Your task to perform on an android device: check data usage Image 0: 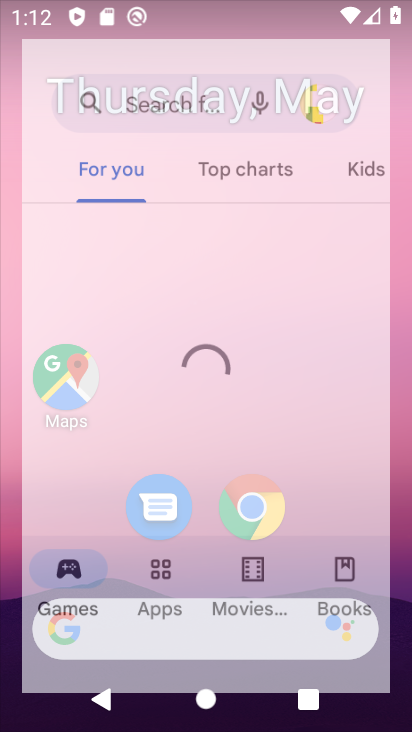
Step 0: drag from (326, 543) to (321, 165)
Your task to perform on an android device: check data usage Image 1: 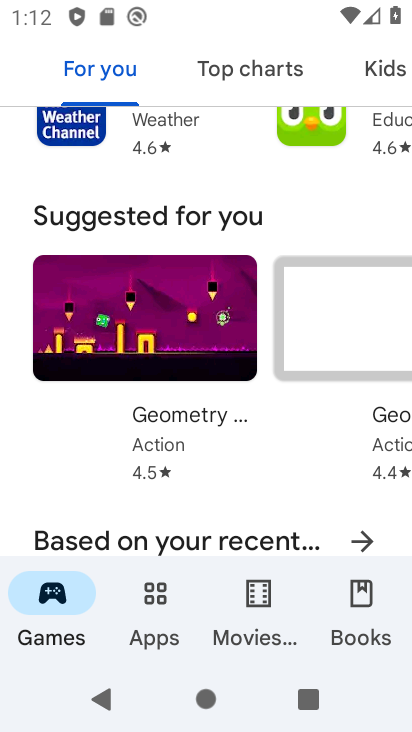
Step 1: press home button
Your task to perform on an android device: check data usage Image 2: 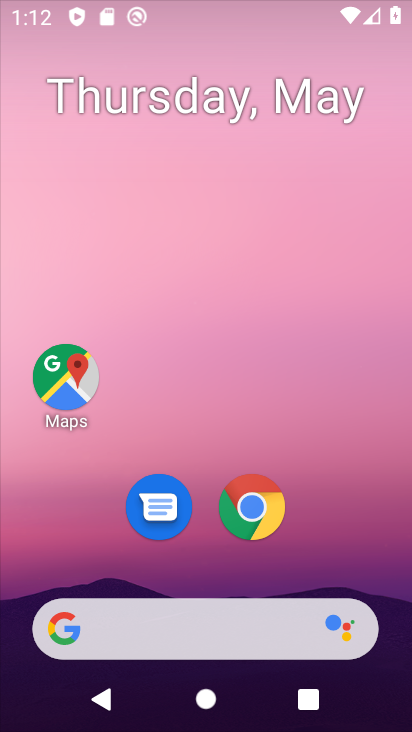
Step 2: drag from (252, 549) to (261, 222)
Your task to perform on an android device: check data usage Image 3: 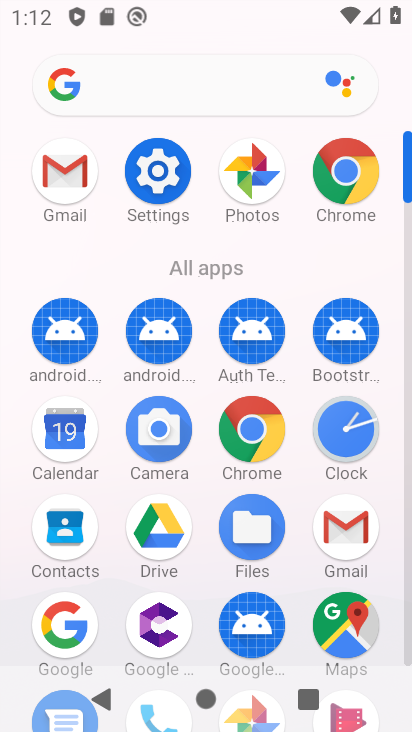
Step 3: click (143, 168)
Your task to perform on an android device: check data usage Image 4: 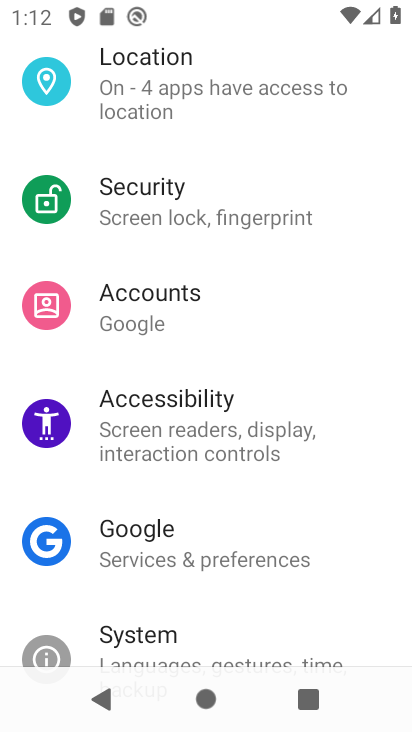
Step 4: drag from (223, 142) to (209, 580)
Your task to perform on an android device: check data usage Image 5: 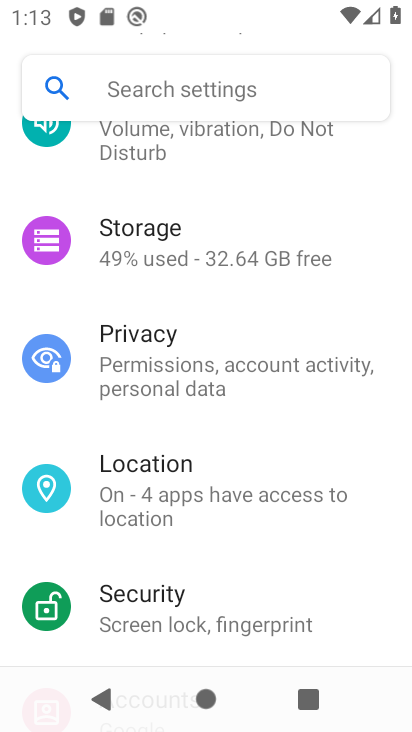
Step 5: drag from (236, 181) to (225, 576)
Your task to perform on an android device: check data usage Image 6: 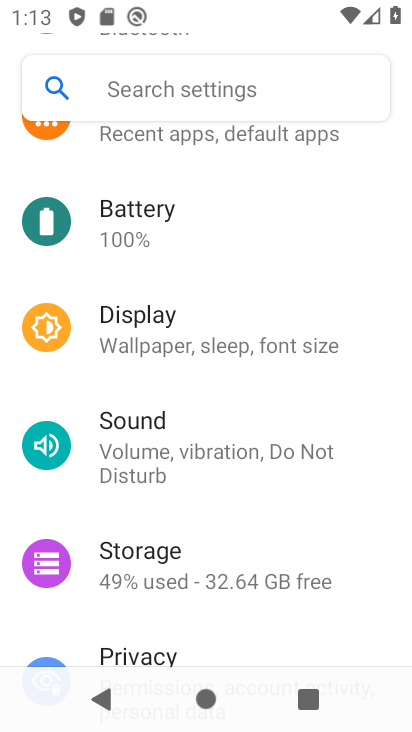
Step 6: drag from (222, 207) to (193, 584)
Your task to perform on an android device: check data usage Image 7: 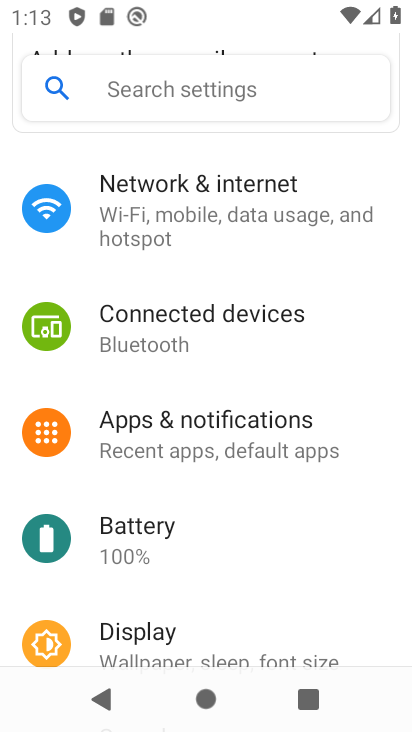
Step 7: click (196, 185)
Your task to perform on an android device: check data usage Image 8: 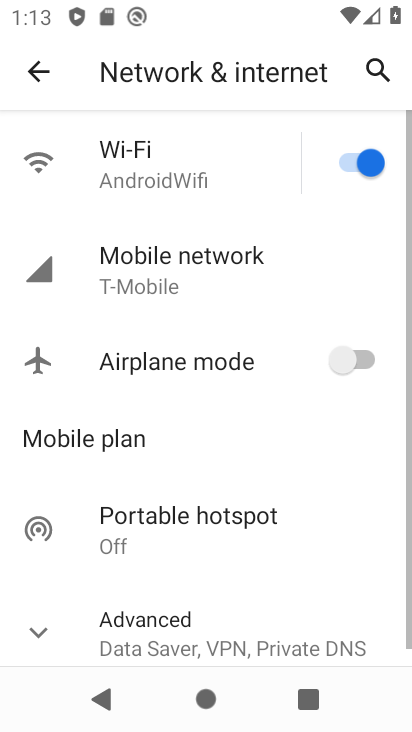
Step 8: click (176, 272)
Your task to perform on an android device: check data usage Image 9: 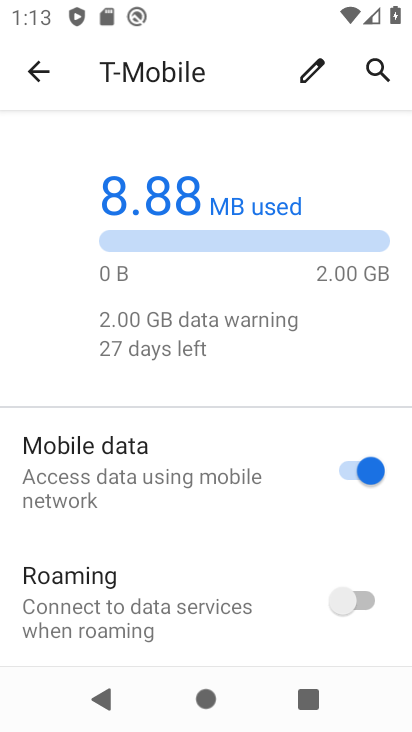
Step 9: task complete